Your task to perform on an android device: change the clock display to digital Image 0: 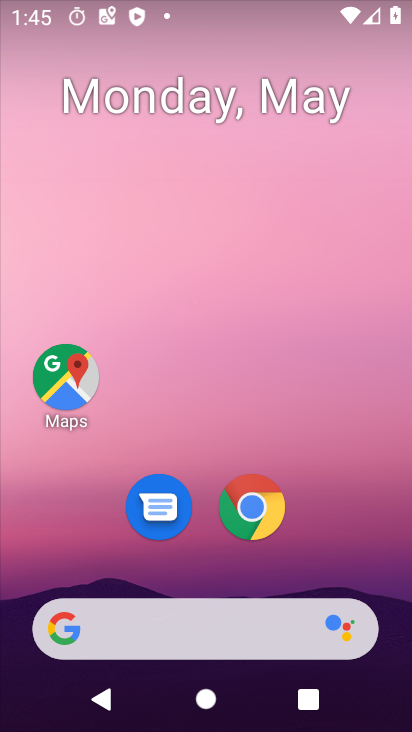
Step 0: drag from (374, 524) to (338, 151)
Your task to perform on an android device: change the clock display to digital Image 1: 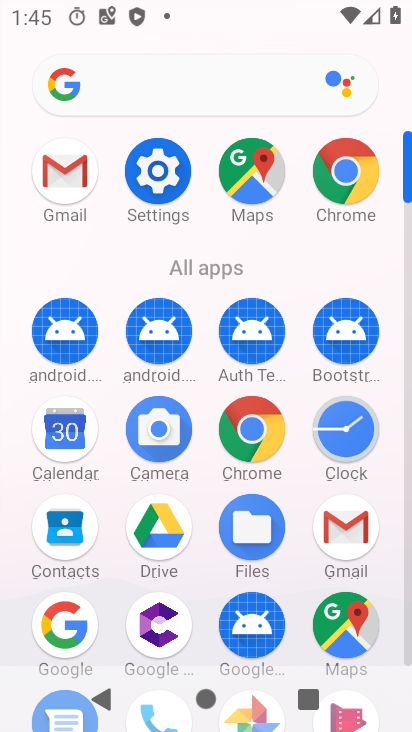
Step 1: click (168, 165)
Your task to perform on an android device: change the clock display to digital Image 2: 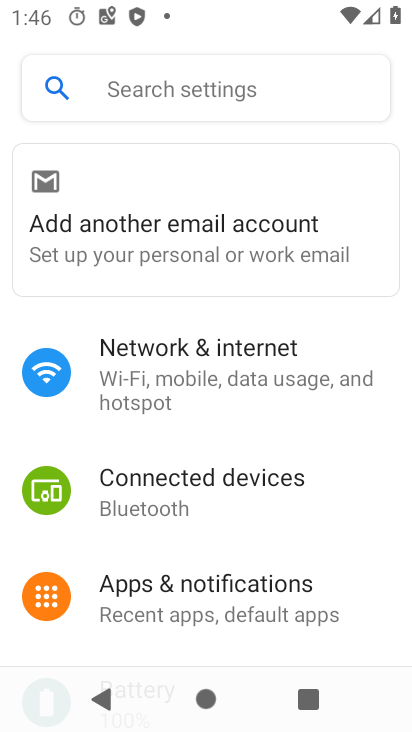
Step 2: press home button
Your task to perform on an android device: change the clock display to digital Image 3: 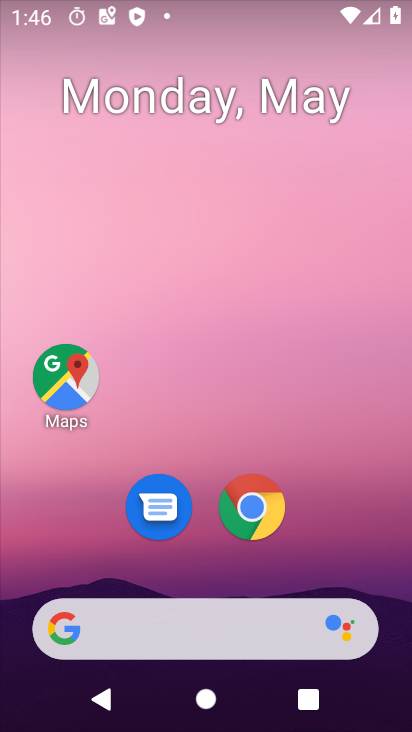
Step 3: drag from (353, 528) to (330, 113)
Your task to perform on an android device: change the clock display to digital Image 4: 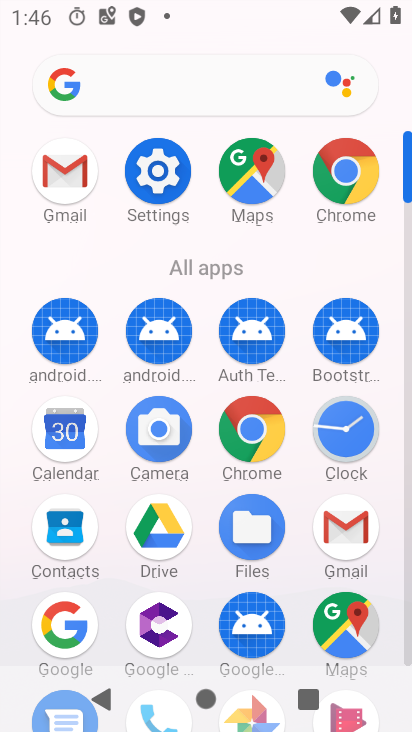
Step 4: click (349, 438)
Your task to perform on an android device: change the clock display to digital Image 5: 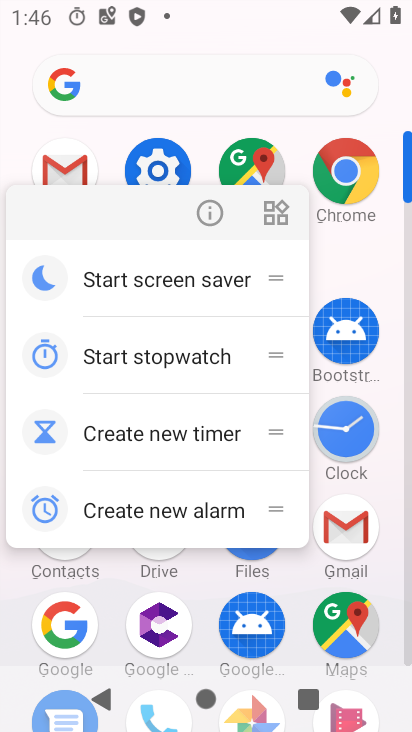
Step 5: click (349, 438)
Your task to perform on an android device: change the clock display to digital Image 6: 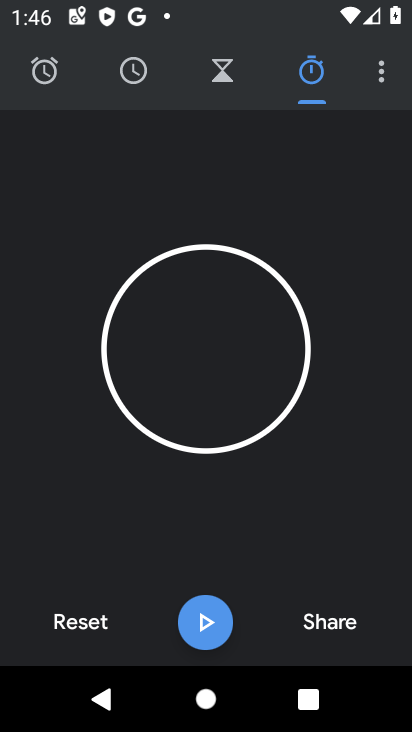
Step 6: click (383, 76)
Your task to perform on an android device: change the clock display to digital Image 7: 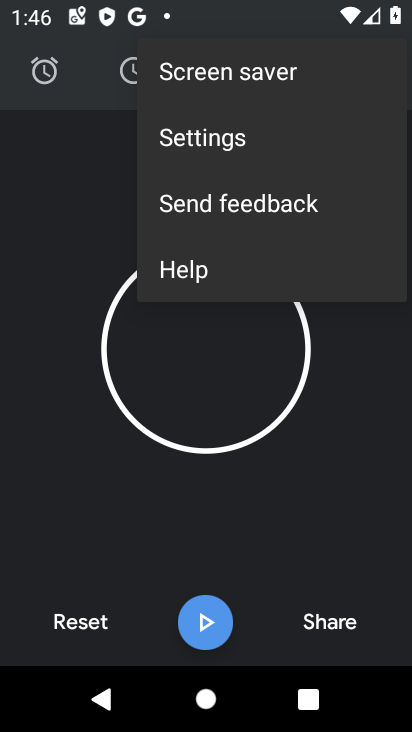
Step 7: click (257, 124)
Your task to perform on an android device: change the clock display to digital Image 8: 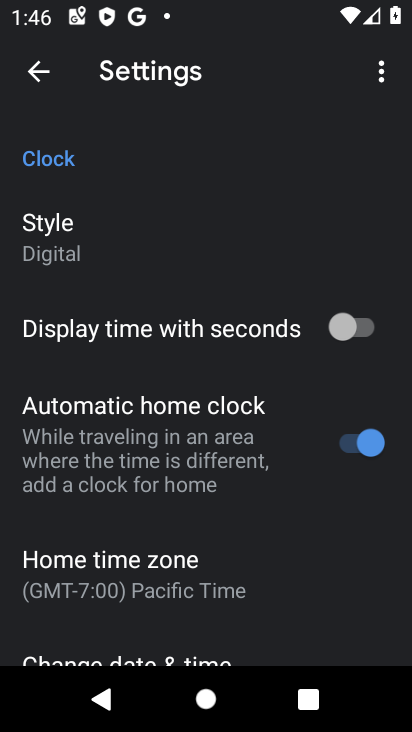
Step 8: click (127, 230)
Your task to perform on an android device: change the clock display to digital Image 9: 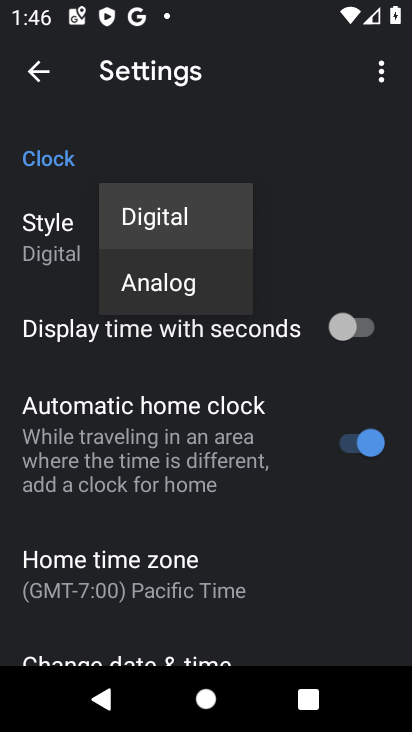
Step 9: task complete